Your task to perform on an android device: Go to Wikipedia Image 0: 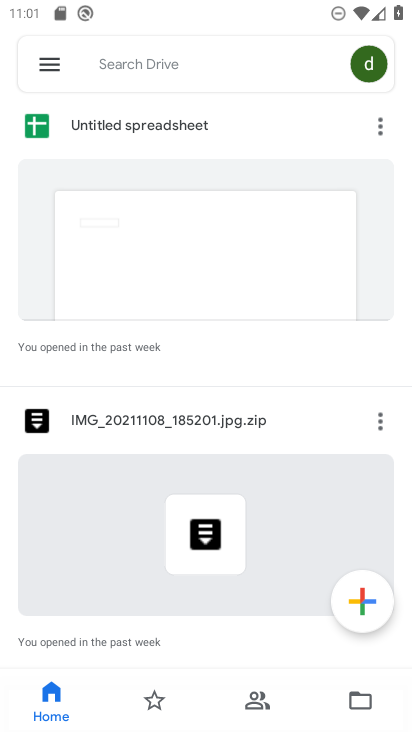
Step 0: press back button
Your task to perform on an android device: Go to Wikipedia Image 1: 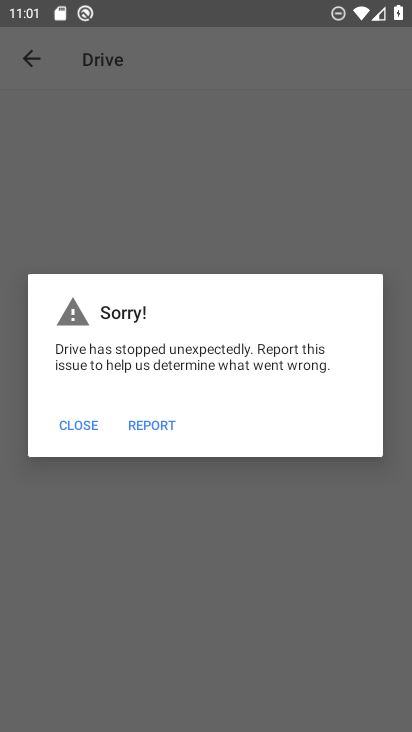
Step 1: press home button
Your task to perform on an android device: Go to Wikipedia Image 2: 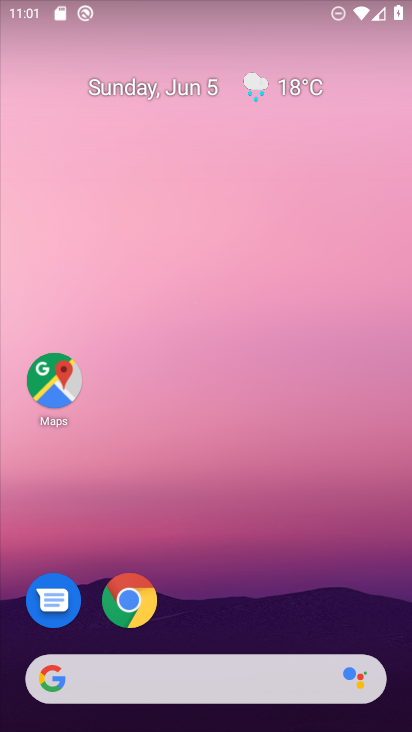
Step 2: click (129, 601)
Your task to perform on an android device: Go to Wikipedia Image 3: 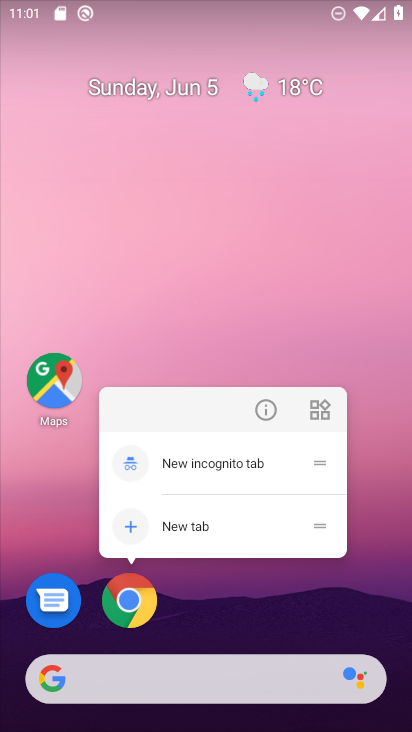
Step 3: click (131, 603)
Your task to perform on an android device: Go to Wikipedia Image 4: 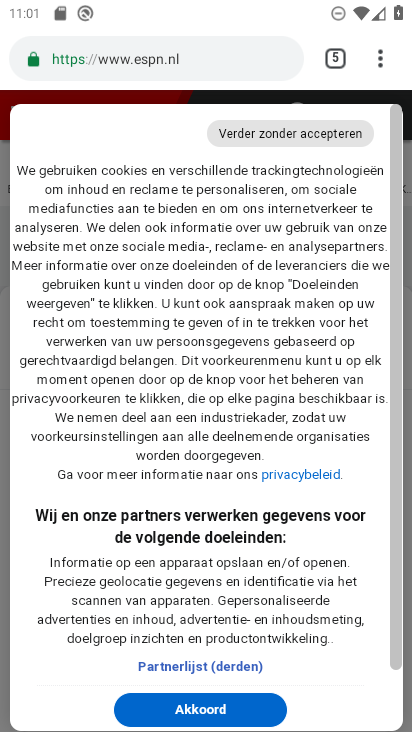
Step 4: click (338, 56)
Your task to perform on an android device: Go to Wikipedia Image 5: 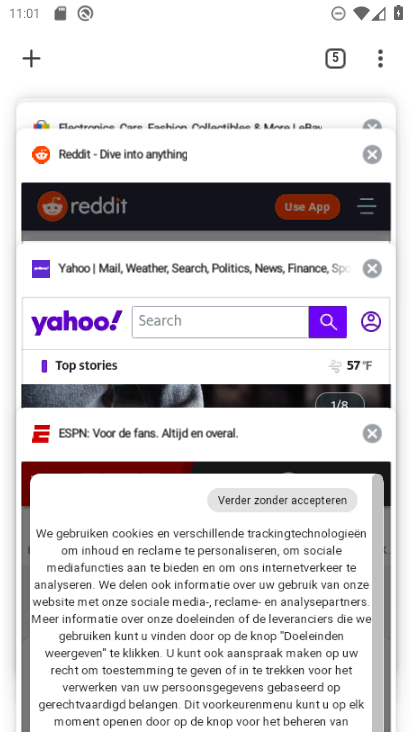
Step 5: drag from (140, 172) to (135, 633)
Your task to perform on an android device: Go to Wikipedia Image 6: 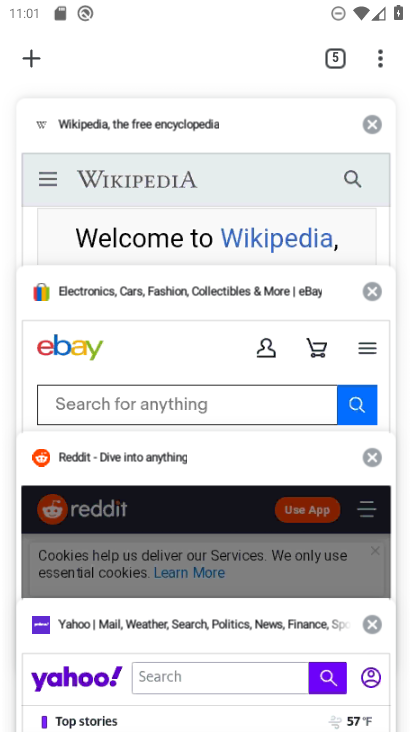
Step 6: click (113, 137)
Your task to perform on an android device: Go to Wikipedia Image 7: 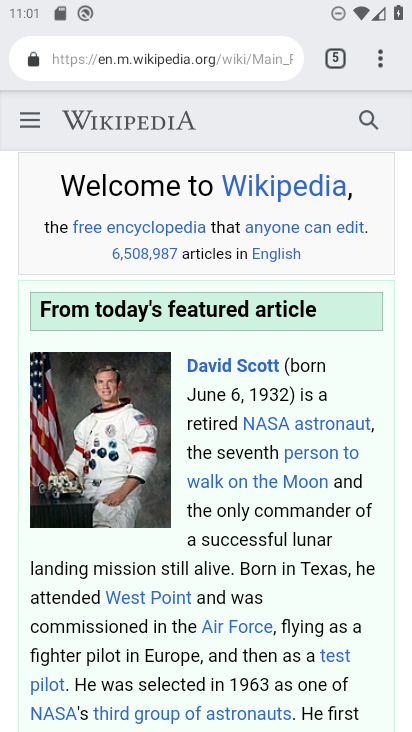
Step 7: task complete